Your task to perform on an android device: Do I have any events this weekend? Image 0: 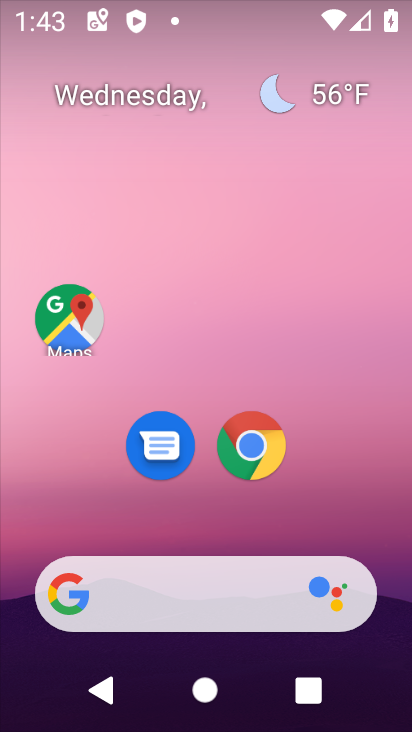
Step 0: drag from (211, 544) to (312, 11)
Your task to perform on an android device: Do I have any events this weekend? Image 1: 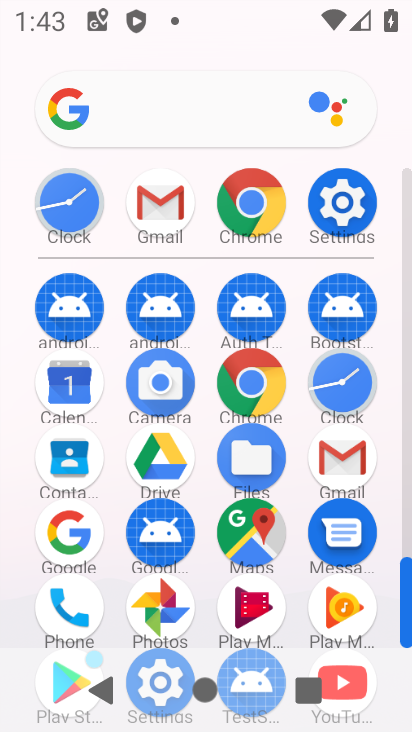
Step 1: click (60, 400)
Your task to perform on an android device: Do I have any events this weekend? Image 2: 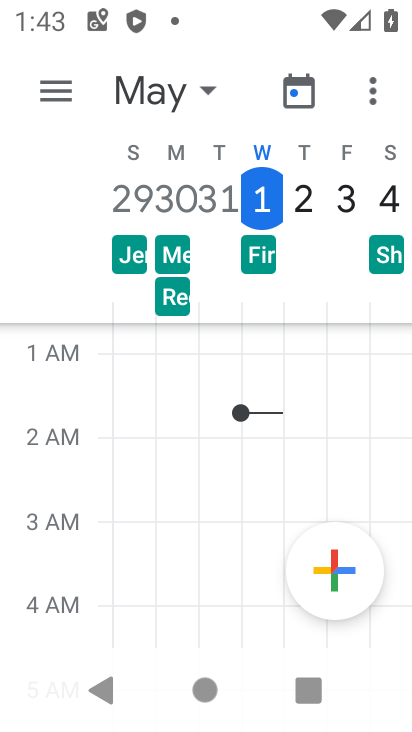
Step 2: task complete